Your task to perform on an android device: turn off improve location accuracy Image 0: 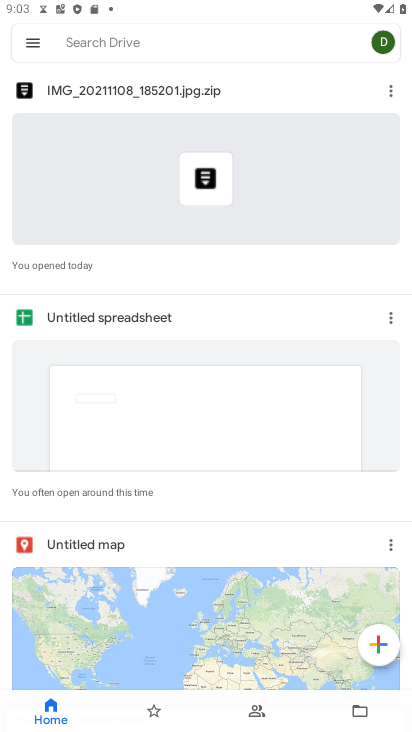
Step 0: press home button
Your task to perform on an android device: turn off improve location accuracy Image 1: 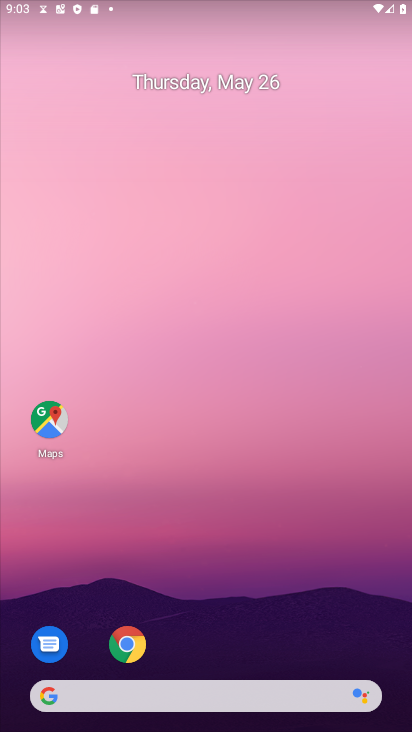
Step 1: drag from (203, 526) to (203, 21)
Your task to perform on an android device: turn off improve location accuracy Image 2: 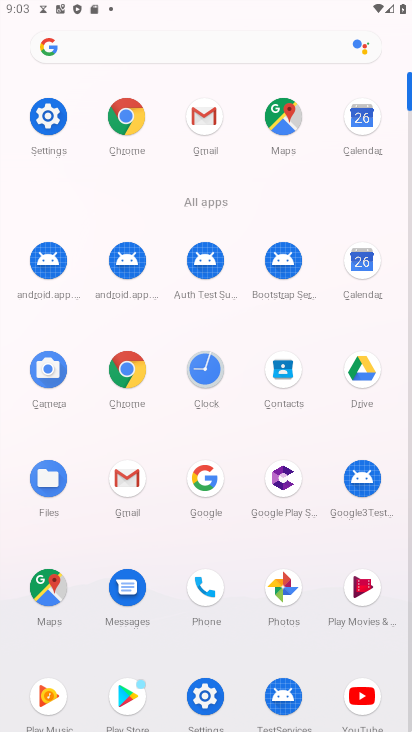
Step 2: click (51, 130)
Your task to perform on an android device: turn off improve location accuracy Image 3: 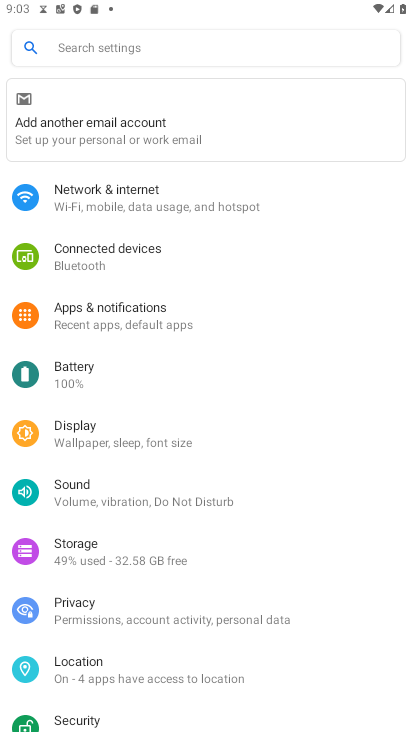
Step 3: click (115, 683)
Your task to perform on an android device: turn off improve location accuracy Image 4: 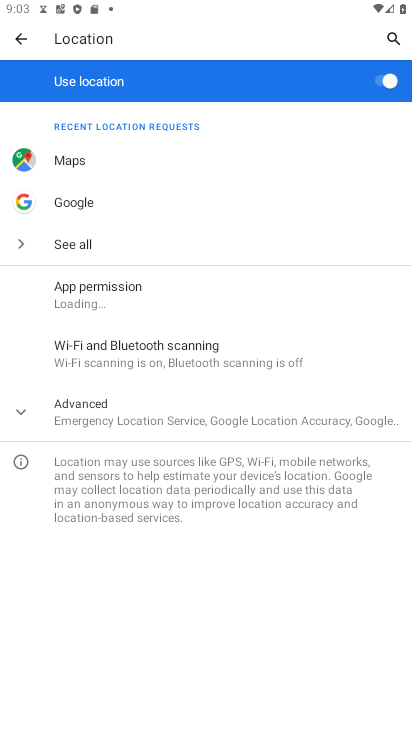
Step 4: click (146, 409)
Your task to perform on an android device: turn off improve location accuracy Image 5: 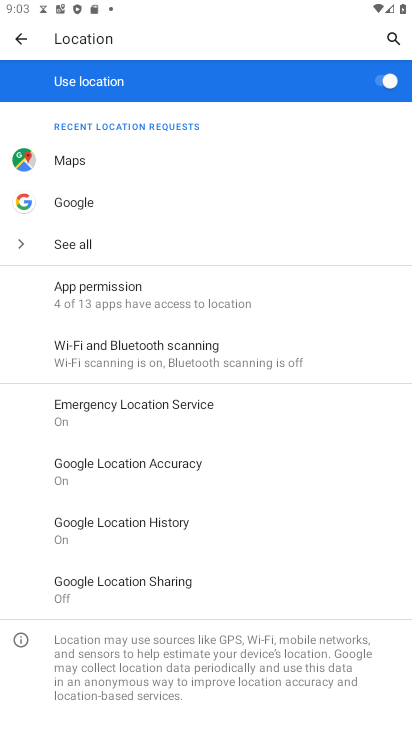
Step 5: click (181, 472)
Your task to perform on an android device: turn off improve location accuracy Image 6: 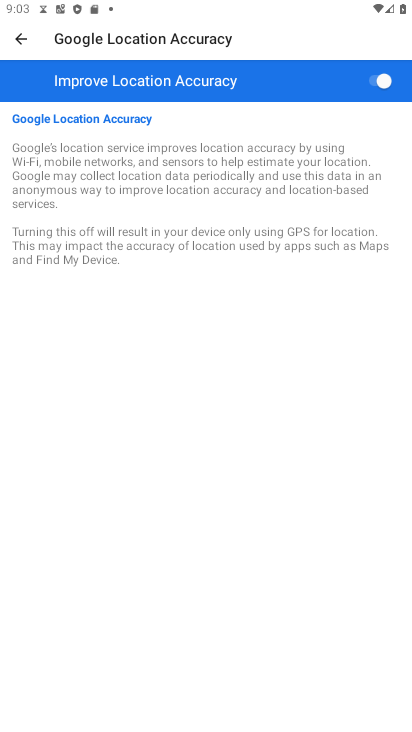
Step 6: click (380, 77)
Your task to perform on an android device: turn off improve location accuracy Image 7: 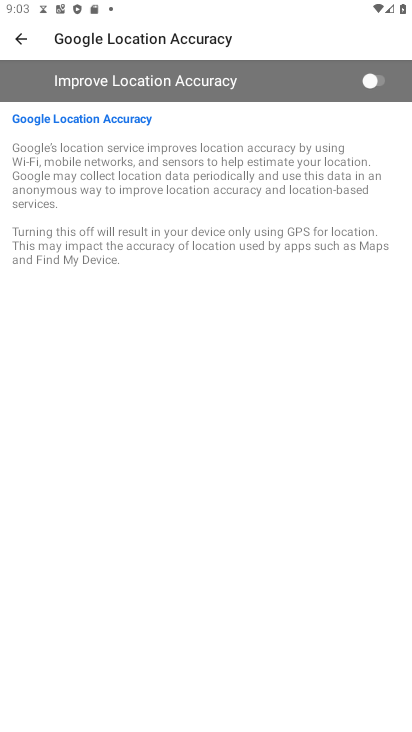
Step 7: task complete